Your task to perform on an android device: Go to wifi settings Image 0: 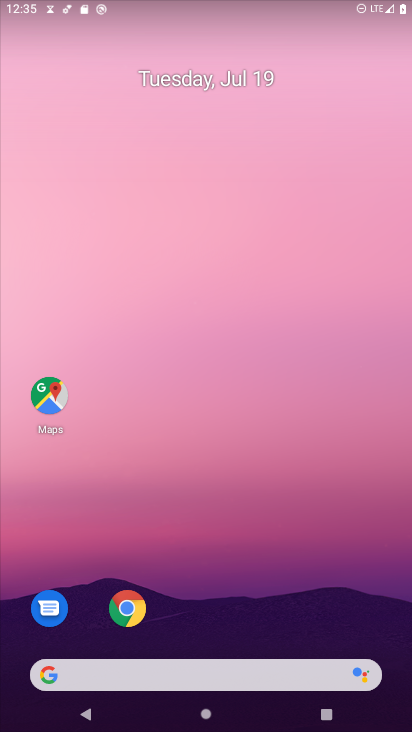
Step 0: drag from (213, 657) to (244, 2)
Your task to perform on an android device: Go to wifi settings Image 1: 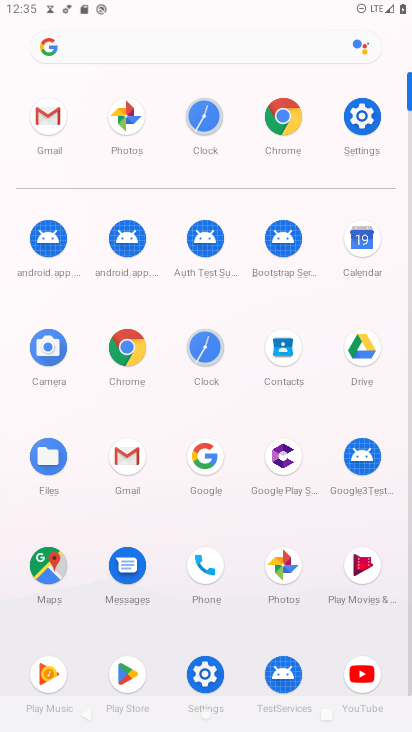
Step 1: click (355, 122)
Your task to perform on an android device: Go to wifi settings Image 2: 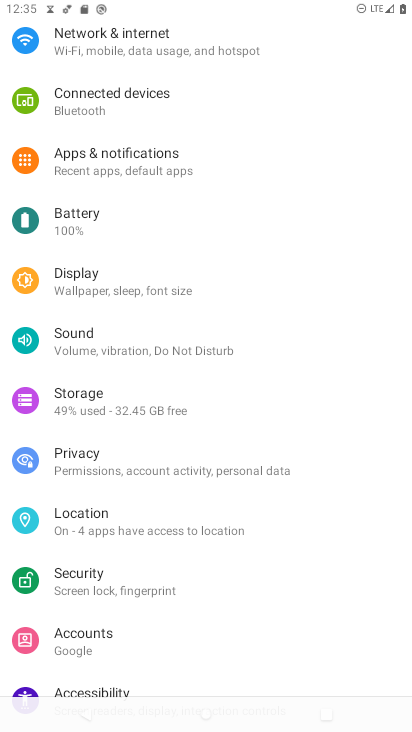
Step 2: drag from (166, 167) to (190, 551)
Your task to perform on an android device: Go to wifi settings Image 3: 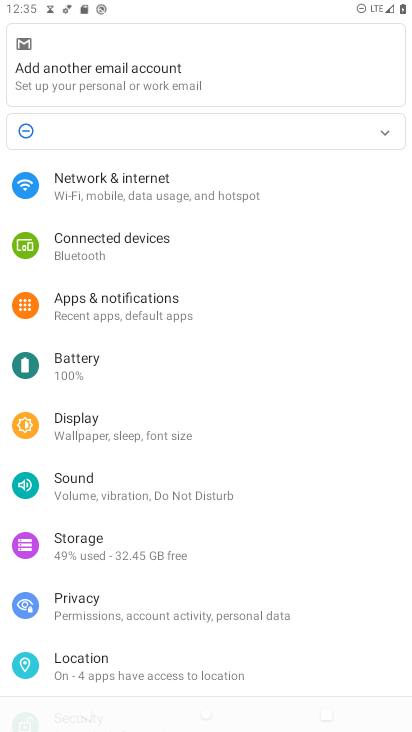
Step 3: click (172, 192)
Your task to perform on an android device: Go to wifi settings Image 4: 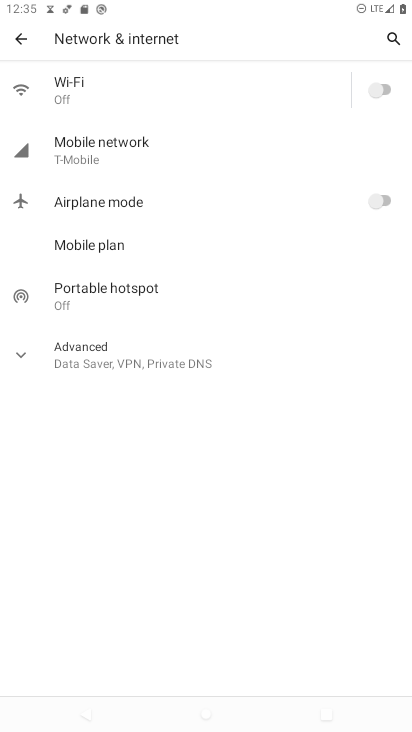
Step 4: task complete